Your task to perform on an android device: delete a single message in the gmail app Image 0: 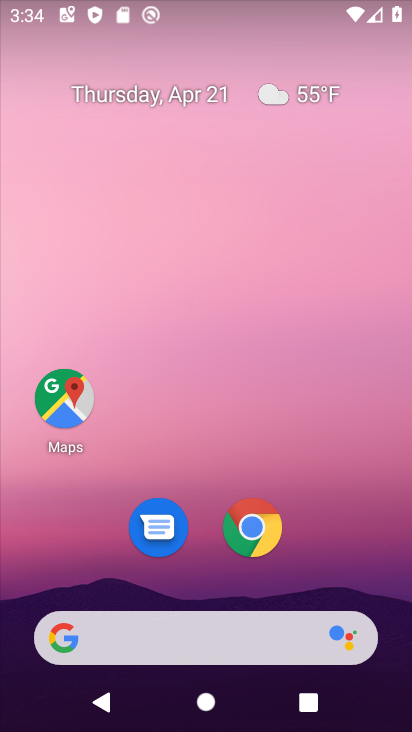
Step 0: drag from (353, 541) to (235, 217)
Your task to perform on an android device: delete a single message in the gmail app Image 1: 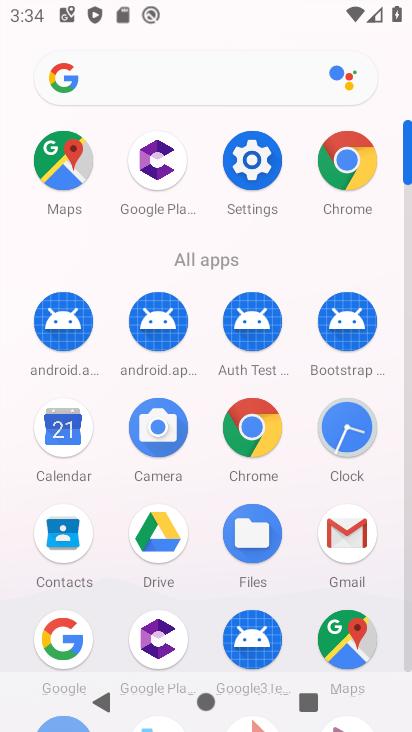
Step 1: click (346, 527)
Your task to perform on an android device: delete a single message in the gmail app Image 2: 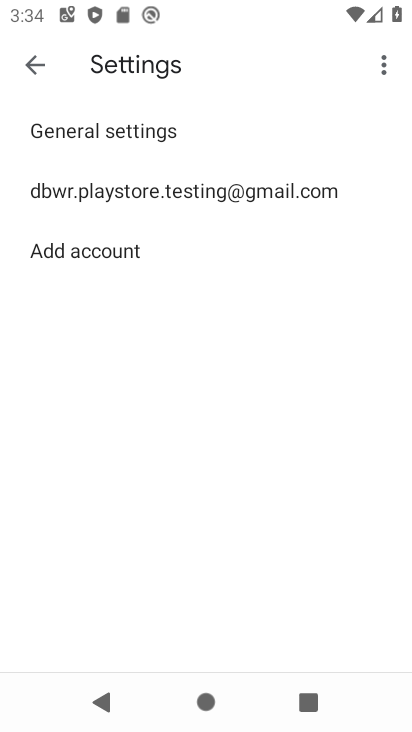
Step 2: click (34, 68)
Your task to perform on an android device: delete a single message in the gmail app Image 3: 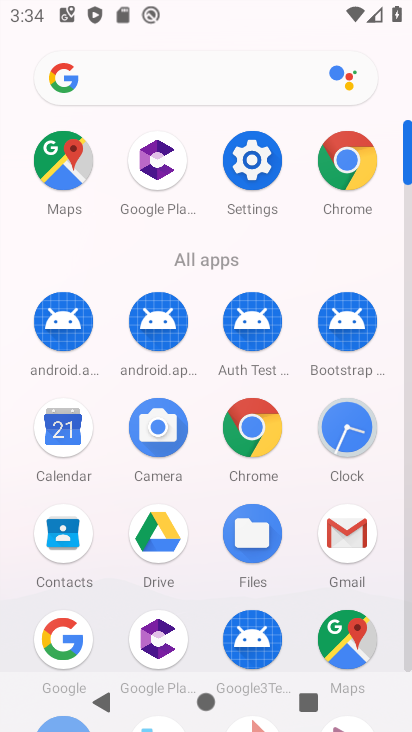
Step 3: click (346, 530)
Your task to perform on an android device: delete a single message in the gmail app Image 4: 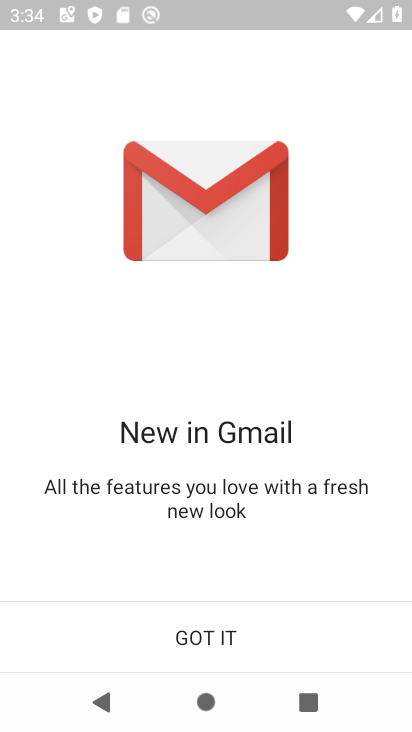
Step 4: click (199, 639)
Your task to perform on an android device: delete a single message in the gmail app Image 5: 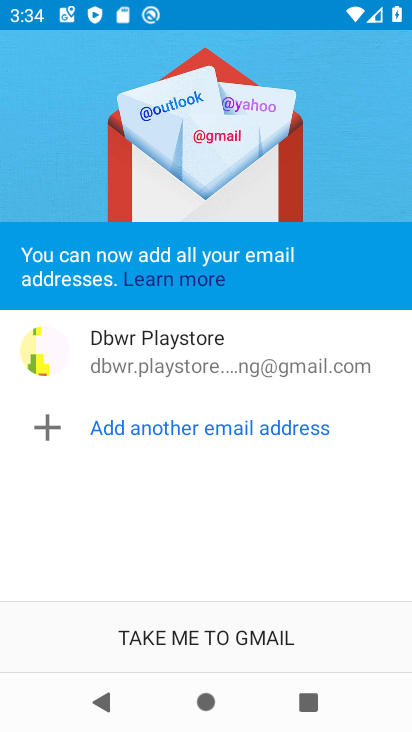
Step 5: click (199, 639)
Your task to perform on an android device: delete a single message in the gmail app Image 6: 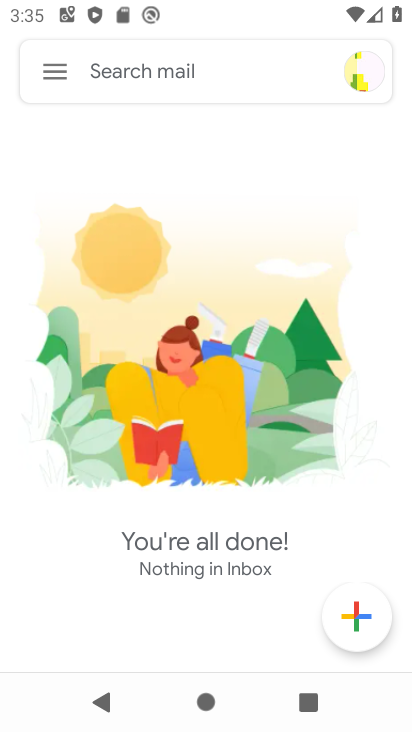
Step 6: click (52, 82)
Your task to perform on an android device: delete a single message in the gmail app Image 7: 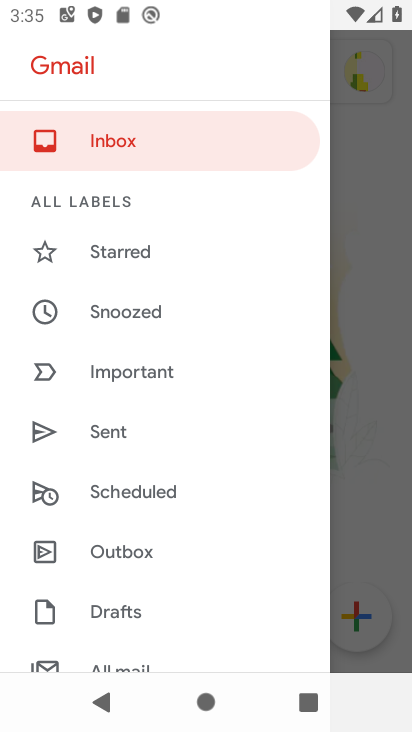
Step 7: drag from (190, 628) to (177, 185)
Your task to perform on an android device: delete a single message in the gmail app Image 8: 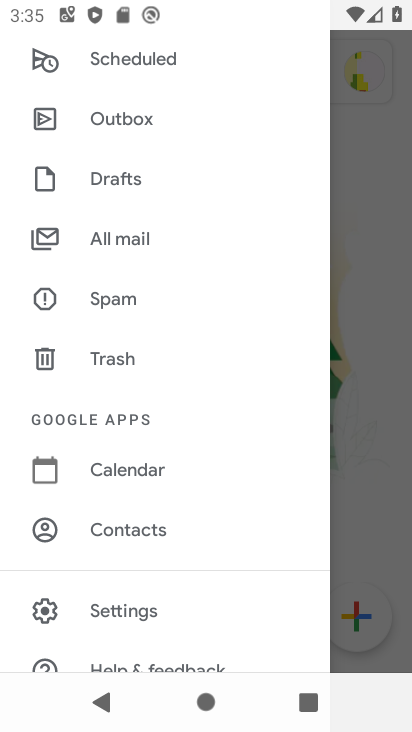
Step 8: click (185, 244)
Your task to perform on an android device: delete a single message in the gmail app Image 9: 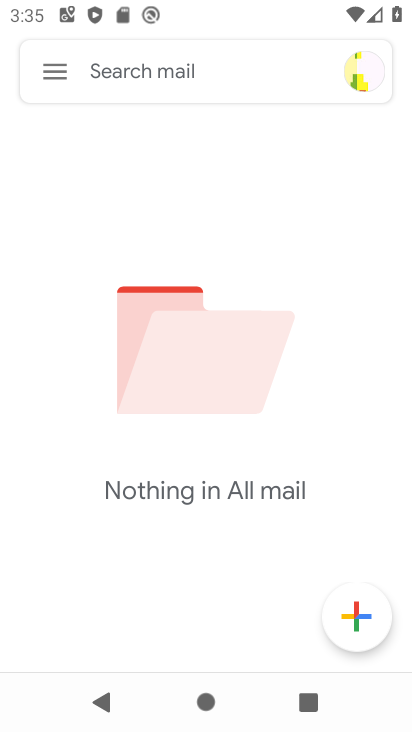
Step 9: task complete